Your task to perform on an android device: change notifications settings Image 0: 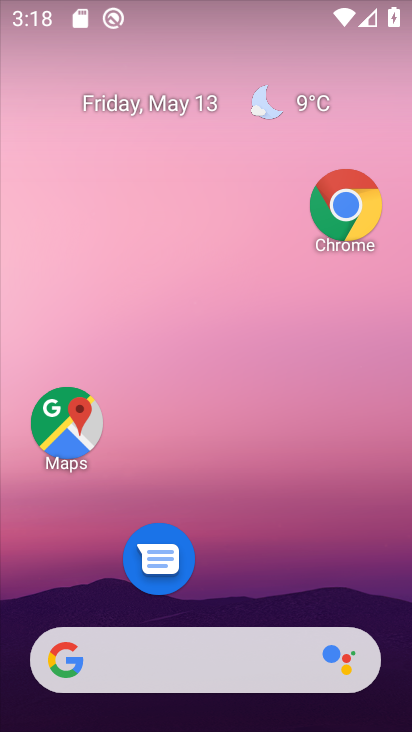
Step 0: drag from (234, 577) to (287, 84)
Your task to perform on an android device: change notifications settings Image 1: 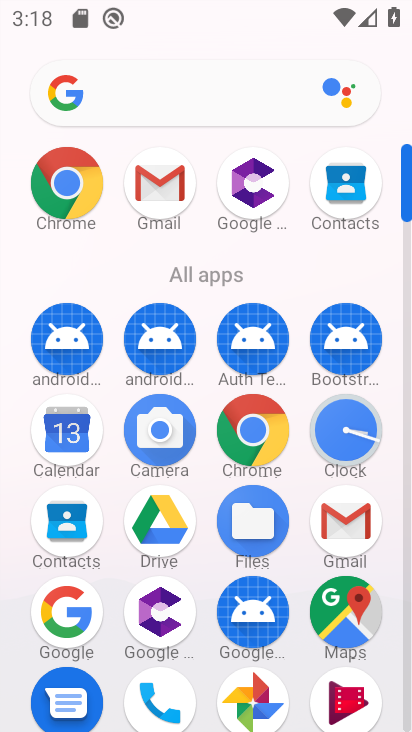
Step 1: drag from (177, 610) to (238, 265)
Your task to perform on an android device: change notifications settings Image 2: 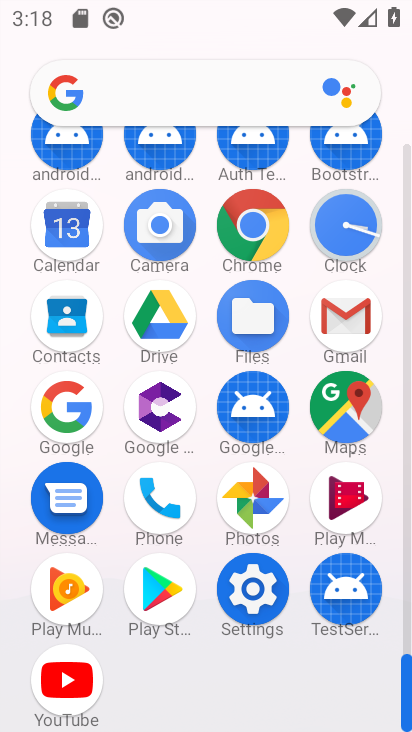
Step 2: click (241, 586)
Your task to perform on an android device: change notifications settings Image 3: 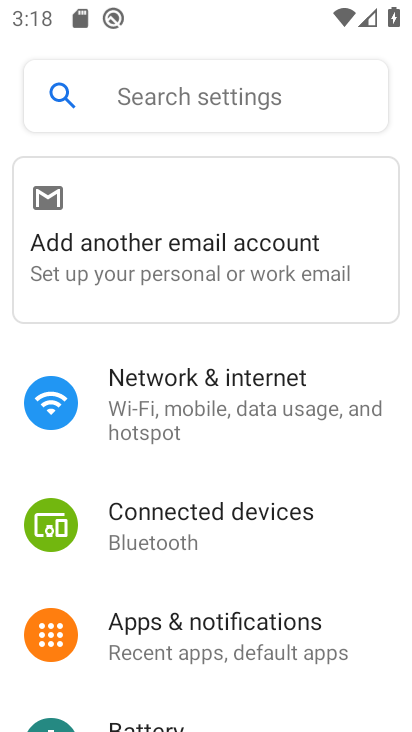
Step 3: click (207, 650)
Your task to perform on an android device: change notifications settings Image 4: 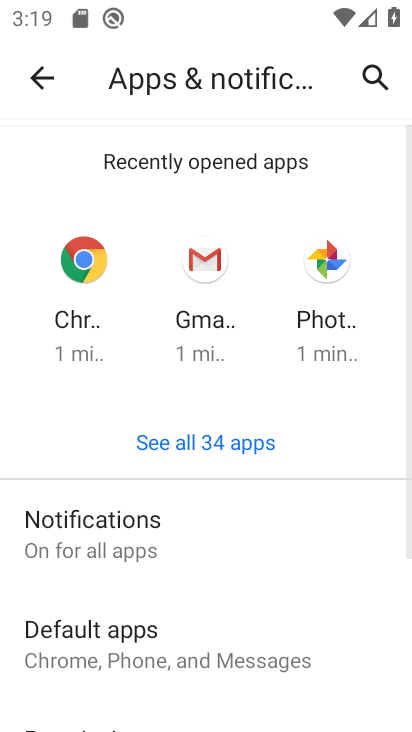
Step 4: click (130, 535)
Your task to perform on an android device: change notifications settings Image 5: 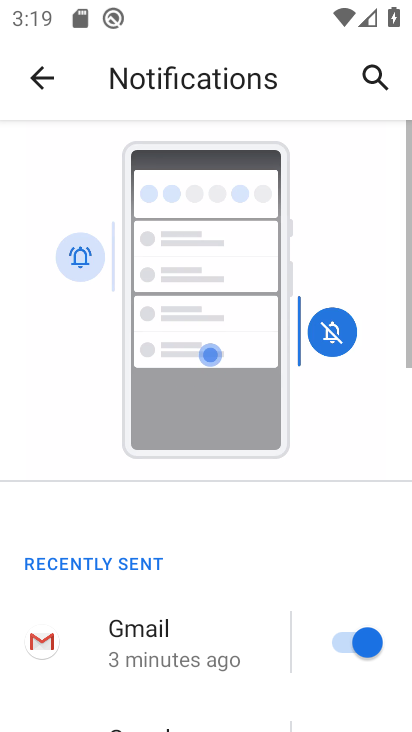
Step 5: drag from (134, 661) to (232, 81)
Your task to perform on an android device: change notifications settings Image 6: 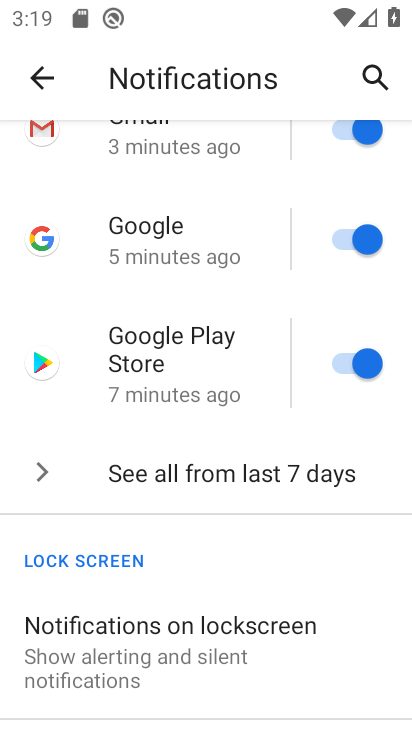
Step 6: drag from (212, 578) to (266, 136)
Your task to perform on an android device: change notifications settings Image 7: 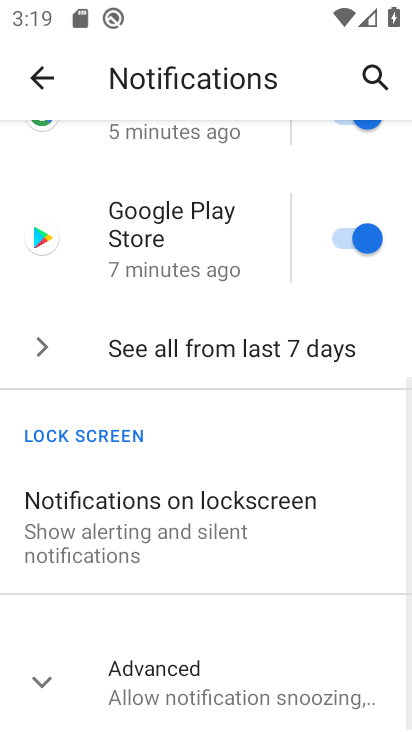
Step 7: click (178, 672)
Your task to perform on an android device: change notifications settings Image 8: 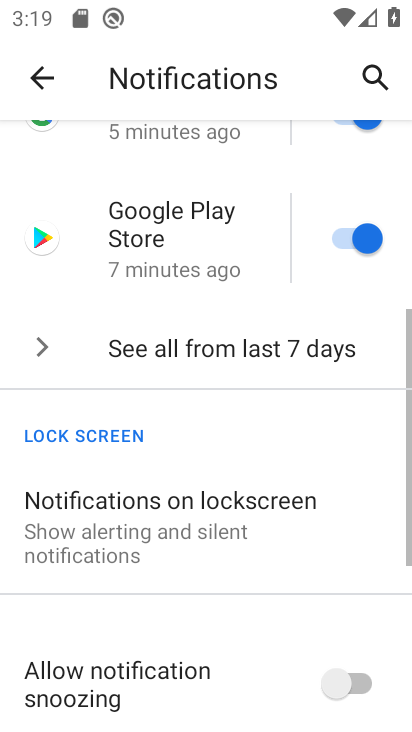
Step 8: click (337, 676)
Your task to perform on an android device: change notifications settings Image 9: 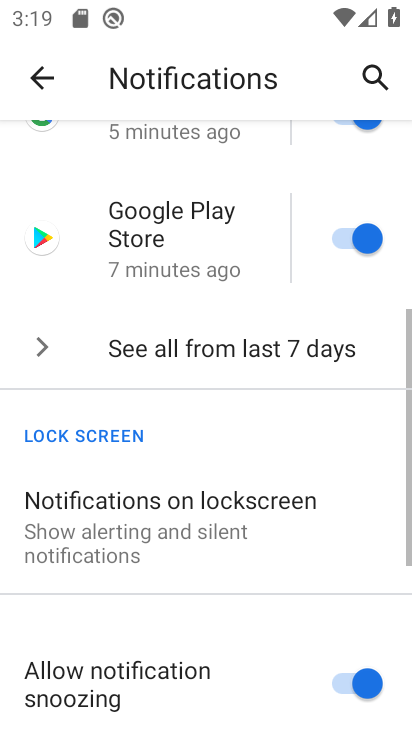
Step 9: task complete